Your task to perform on an android device: check android version Image 0: 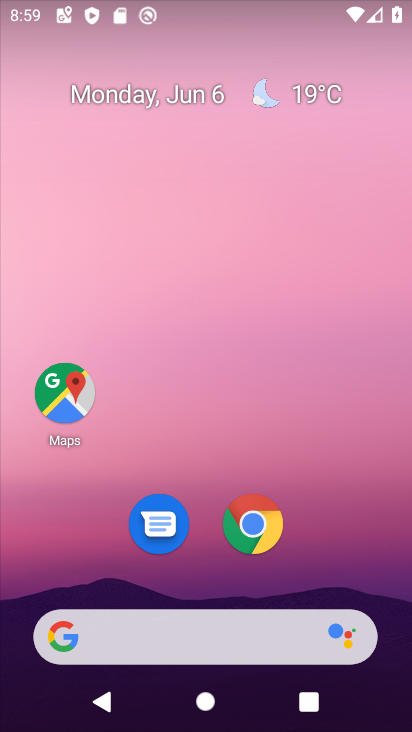
Step 0: drag from (261, 458) to (227, 5)
Your task to perform on an android device: check android version Image 1: 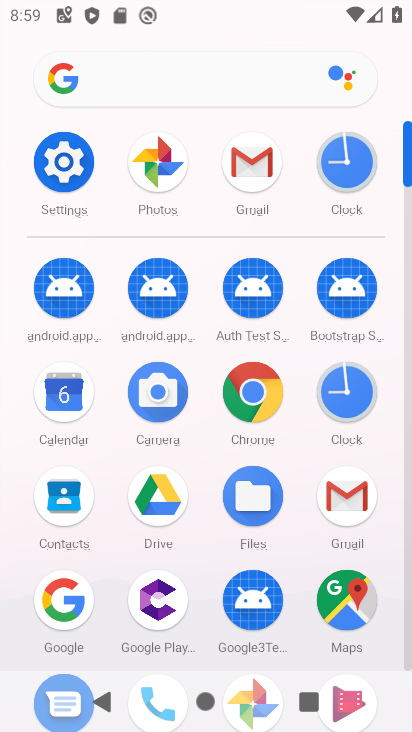
Step 1: click (54, 163)
Your task to perform on an android device: check android version Image 2: 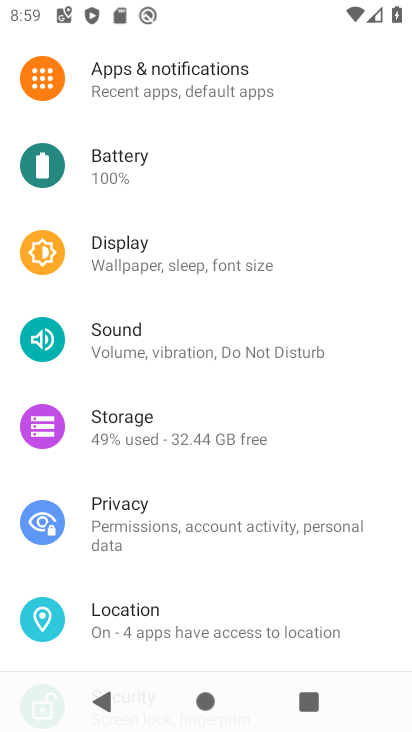
Step 2: drag from (230, 564) to (275, 13)
Your task to perform on an android device: check android version Image 3: 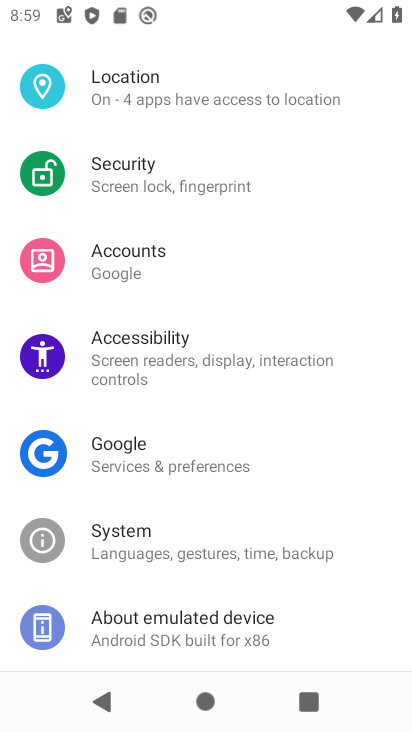
Step 3: click (159, 622)
Your task to perform on an android device: check android version Image 4: 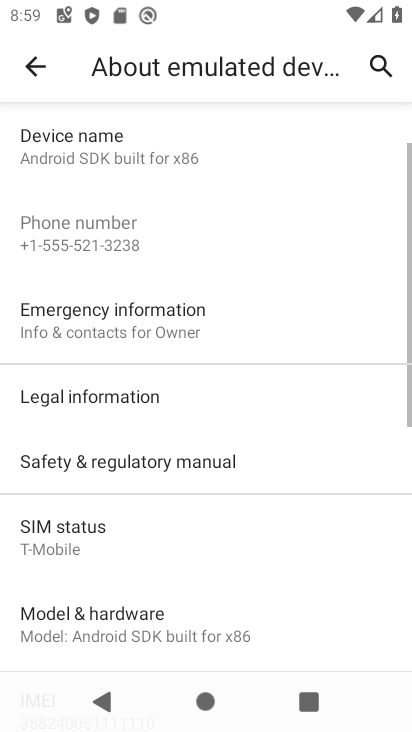
Step 4: task complete